Your task to perform on an android device: Open sound settings Image 0: 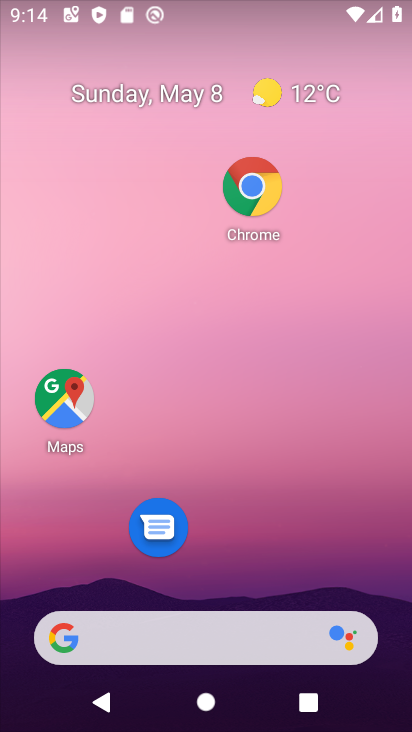
Step 0: drag from (272, 567) to (312, 194)
Your task to perform on an android device: Open sound settings Image 1: 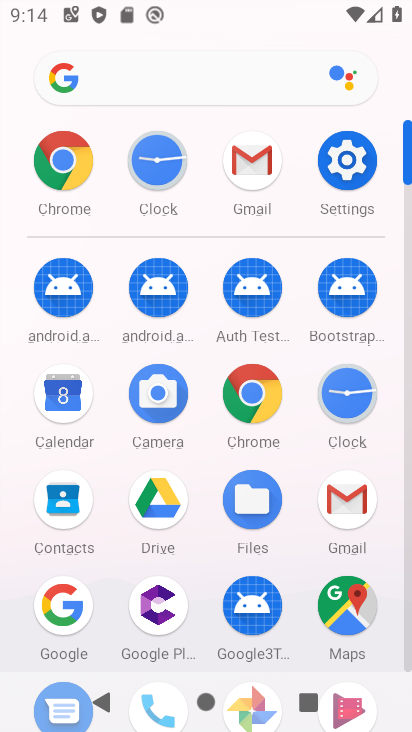
Step 1: click (346, 145)
Your task to perform on an android device: Open sound settings Image 2: 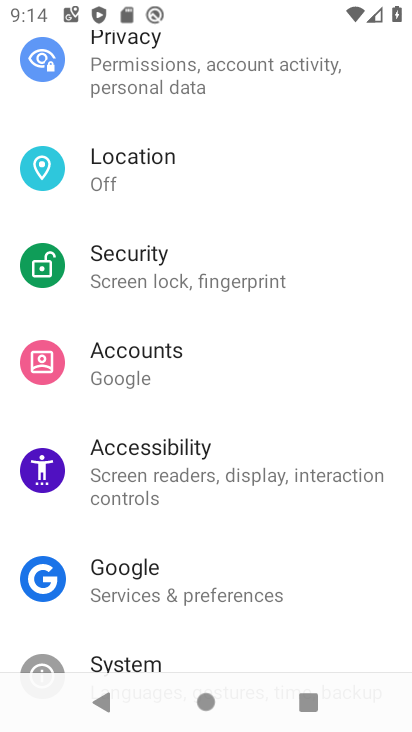
Step 2: drag from (196, 212) to (194, 614)
Your task to perform on an android device: Open sound settings Image 3: 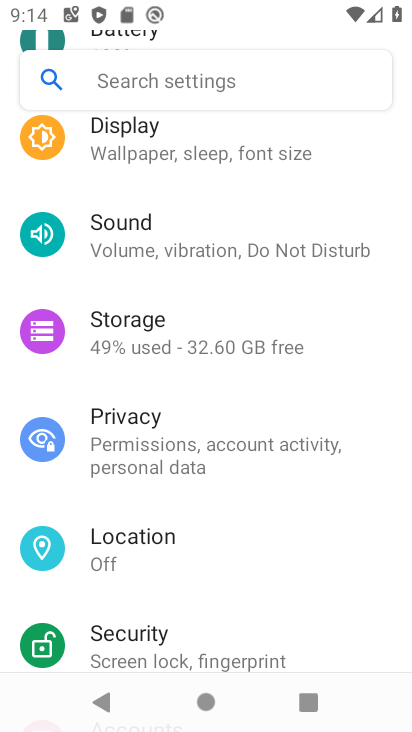
Step 3: click (135, 231)
Your task to perform on an android device: Open sound settings Image 4: 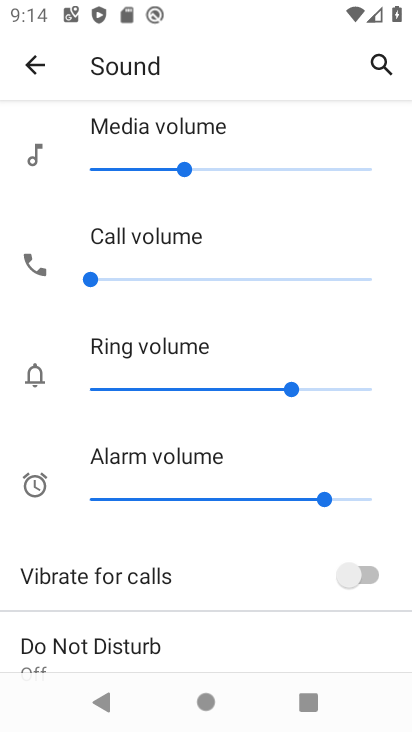
Step 4: task complete